Your task to perform on an android device: Go to Maps Image 0: 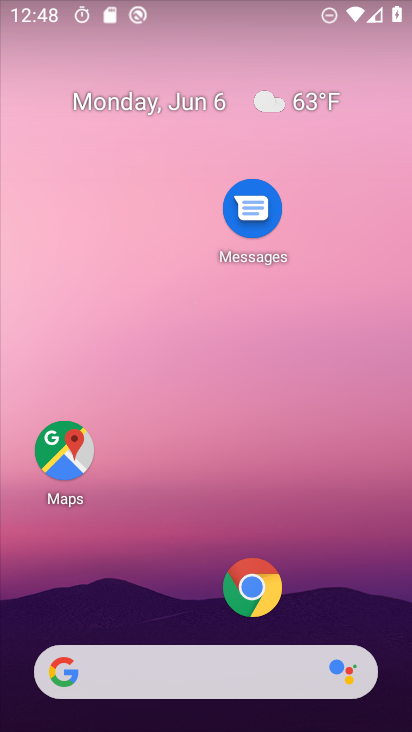
Step 0: click (54, 457)
Your task to perform on an android device: Go to Maps Image 1: 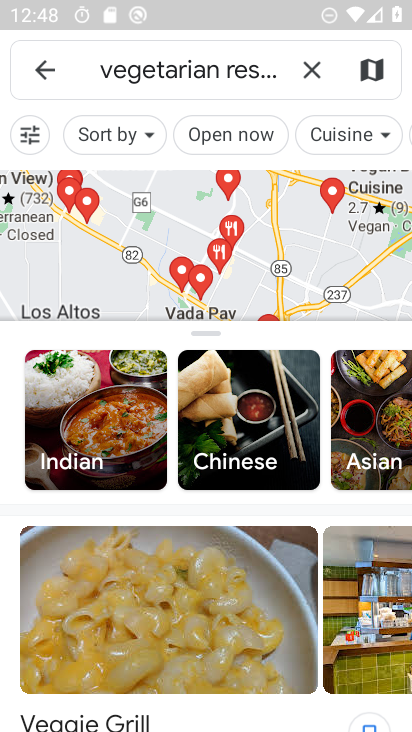
Step 1: task complete